Your task to perform on an android device: Open settings Image 0: 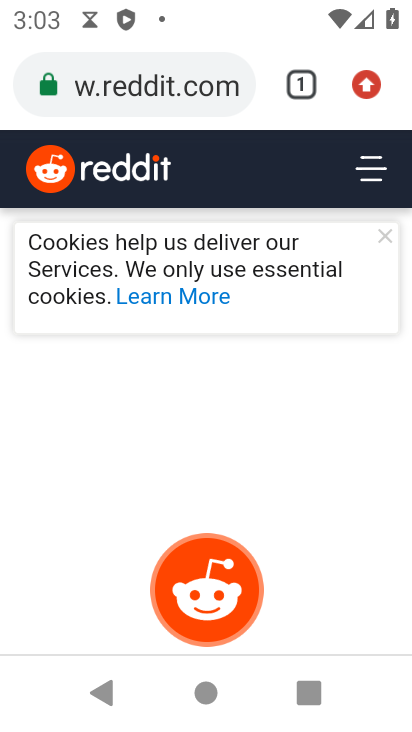
Step 0: press back button
Your task to perform on an android device: Open settings Image 1: 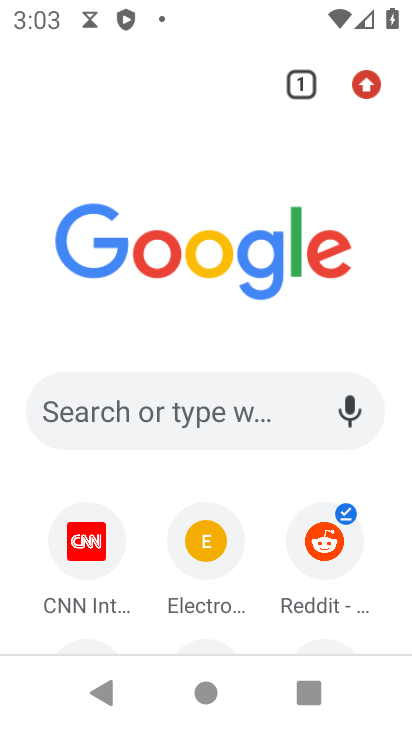
Step 1: press back button
Your task to perform on an android device: Open settings Image 2: 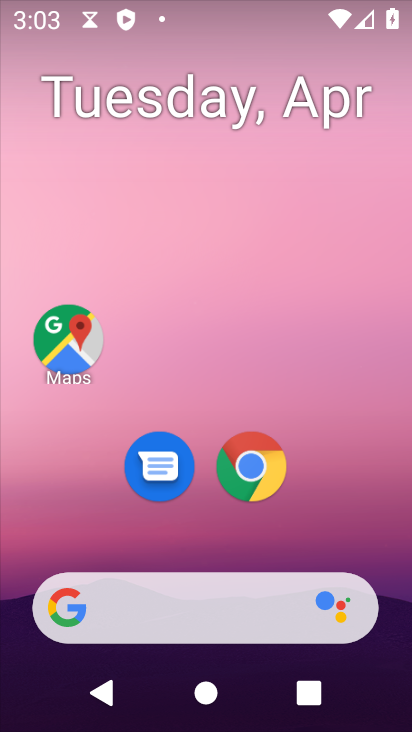
Step 2: drag from (345, 502) to (229, 17)
Your task to perform on an android device: Open settings Image 3: 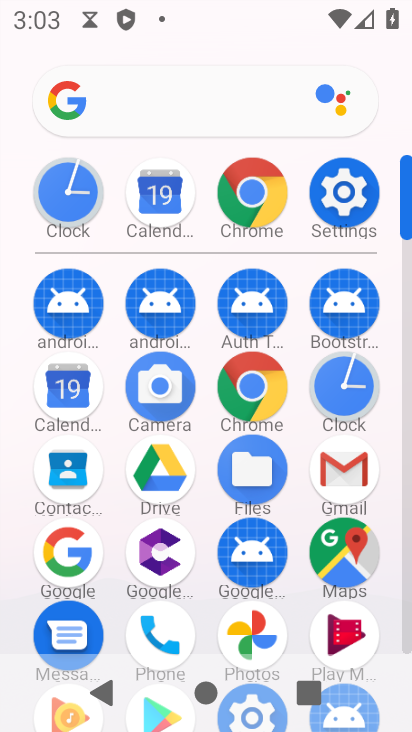
Step 3: click (346, 187)
Your task to perform on an android device: Open settings Image 4: 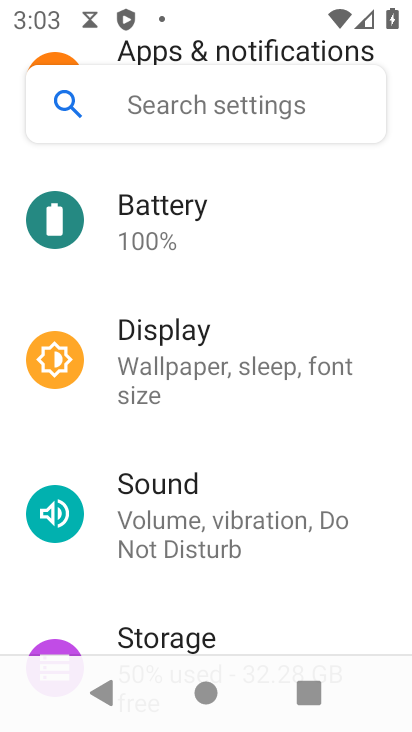
Step 4: task complete